Your task to perform on an android device: set the stopwatch Image 0: 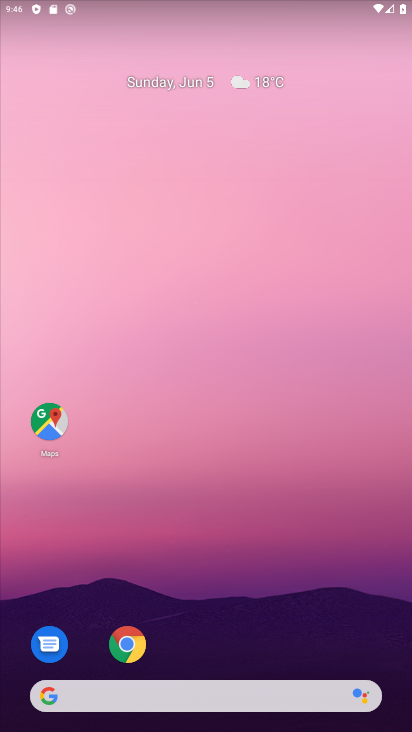
Step 0: drag from (172, 657) to (279, 184)
Your task to perform on an android device: set the stopwatch Image 1: 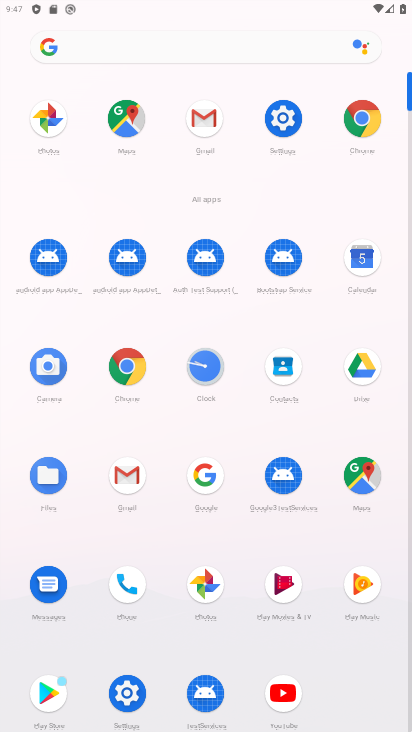
Step 1: click (221, 365)
Your task to perform on an android device: set the stopwatch Image 2: 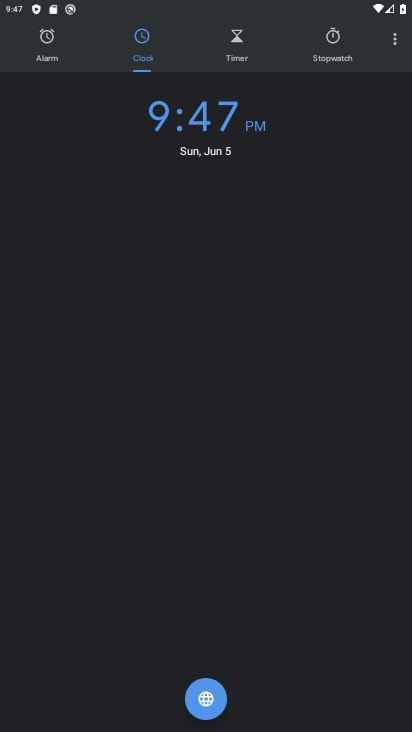
Step 2: click (333, 42)
Your task to perform on an android device: set the stopwatch Image 3: 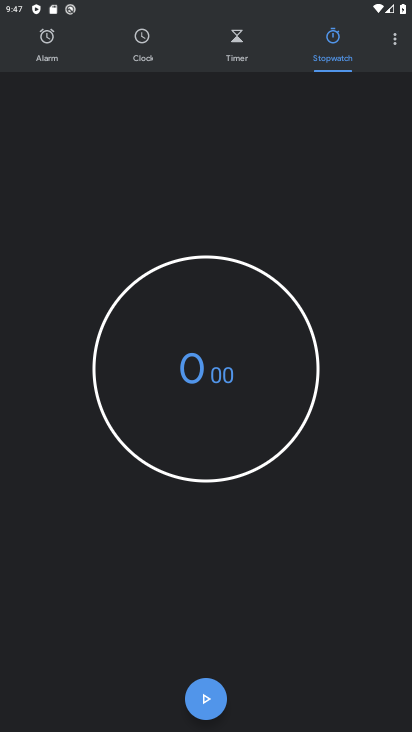
Step 3: click (199, 704)
Your task to perform on an android device: set the stopwatch Image 4: 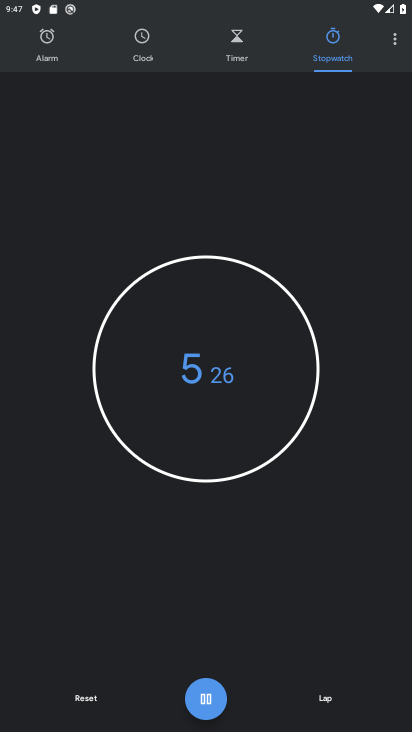
Step 4: task complete